Your task to perform on an android device: Open network settings Image 0: 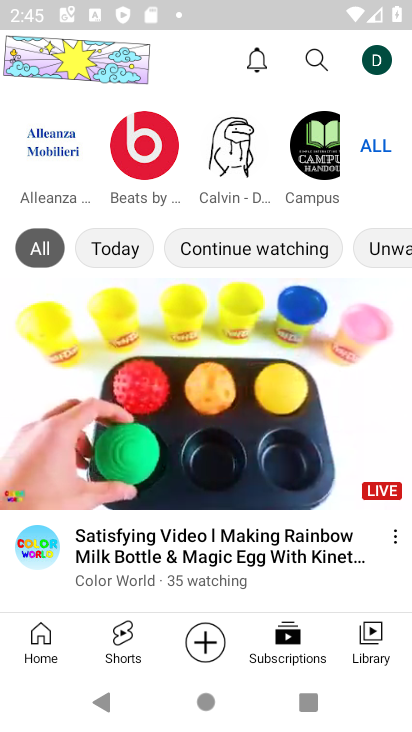
Step 0: press home button
Your task to perform on an android device: Open network settings Image 1: 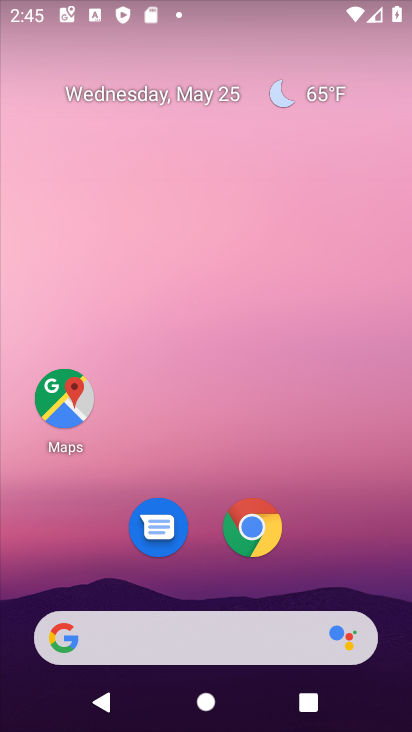
Step 1: drag from (316, 675) to (277, 101)
Your task to perform on an android device: Open network settings Image 2: 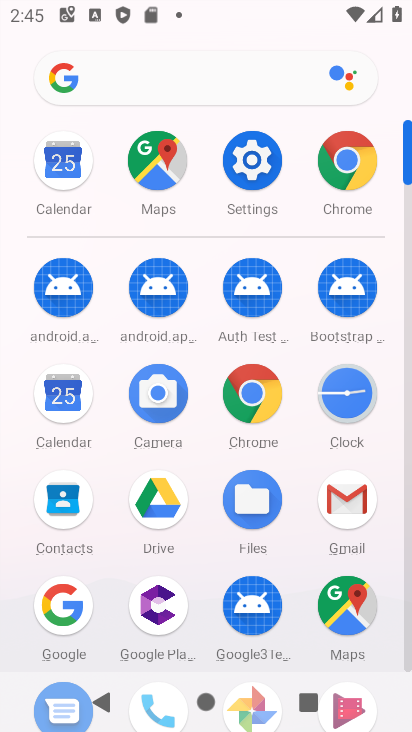
Step 2: click (246, 147)
Your task to perform on an android device: Open network settings Image 3: 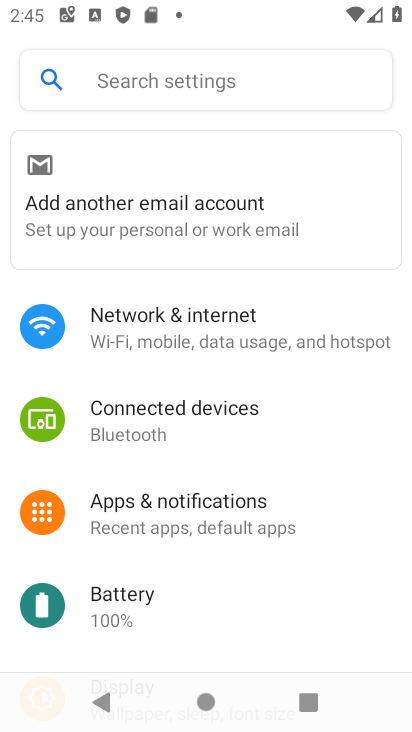
Step 3: click (196, 339)
Your task to perform on an android device: Open network settings Image 4: 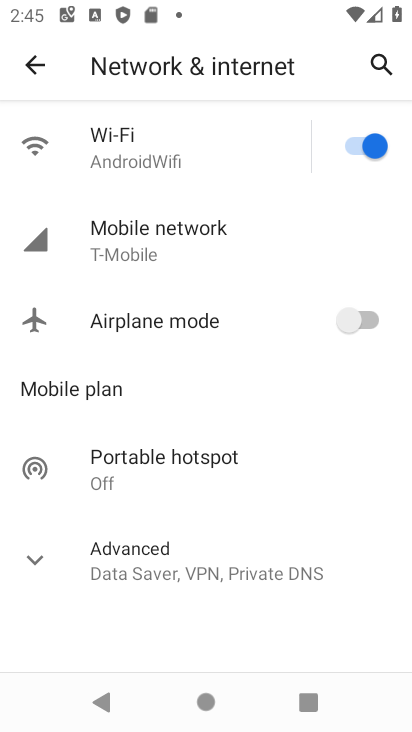
Step 4: click (171, 269)
Your task to perform on an android device: Open network settings Image 5: 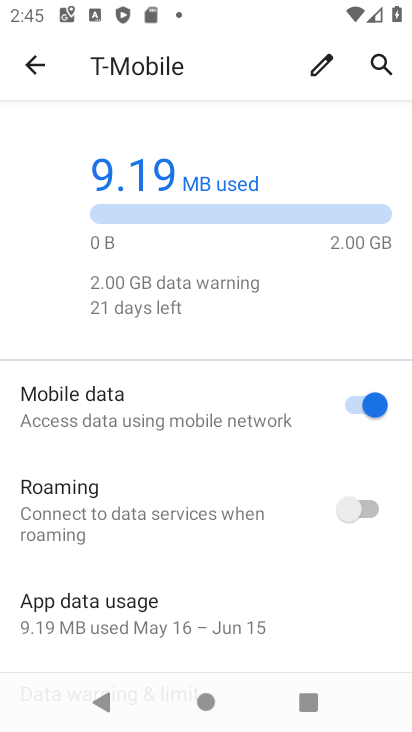
Step 5: task complete